Your task to perform on an android device: show emergency info Image 0: 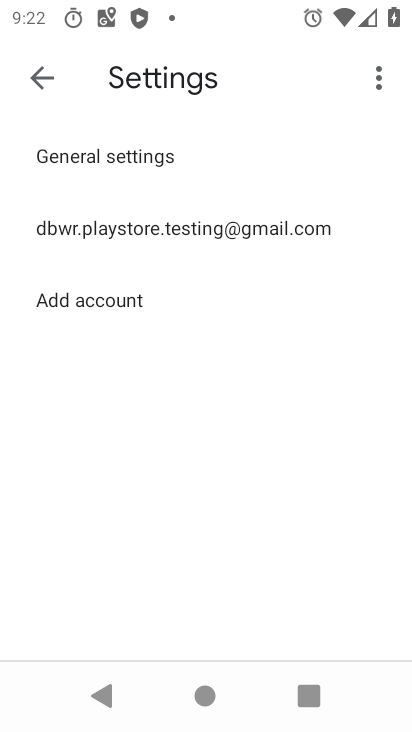
Step 0: press home button
Your task to perform on an android device: show emergency info Image 1: 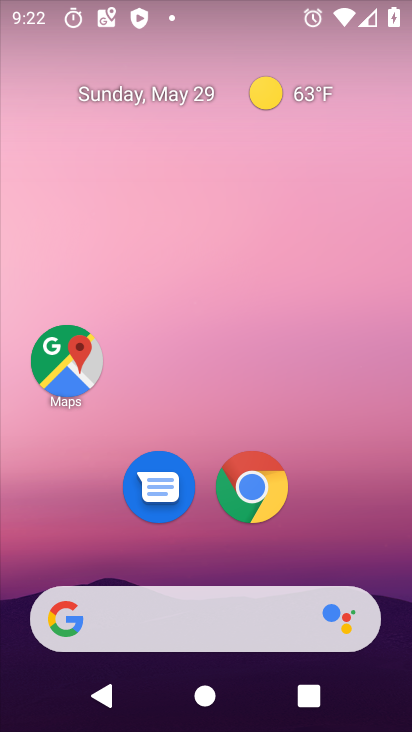
Step 1: drag from (200, 600) to (223, 148)
Your task to perform on an android device: show emergency info Image 2: 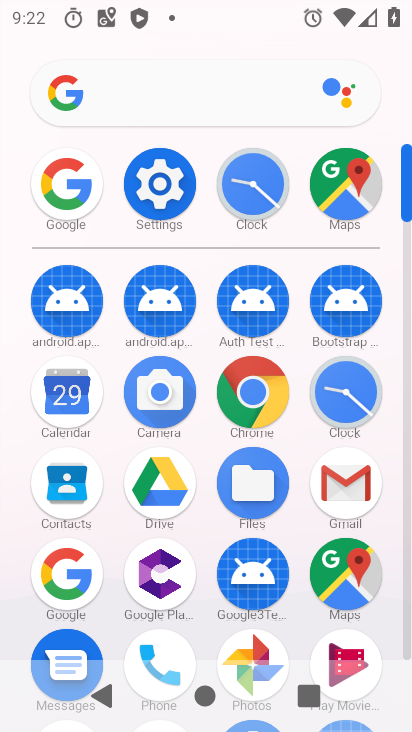
Step 2: click (158, 179)
Your task to perform on an android device: show emergency info Image 3: 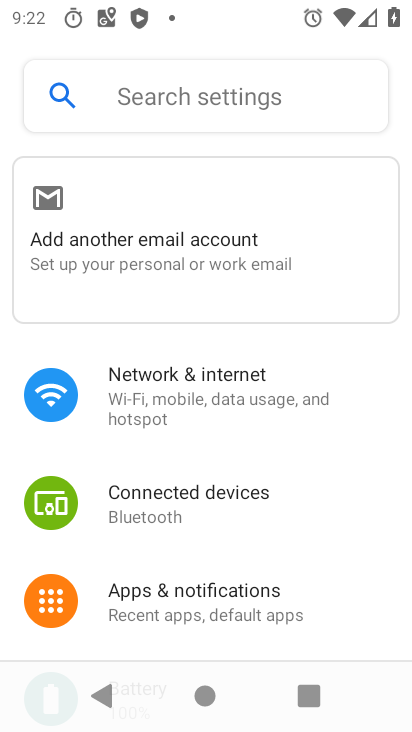
Step 3: drag from (185, 452) to (229, 204)
Your task to perform on an android device: show emergency info Image 4: 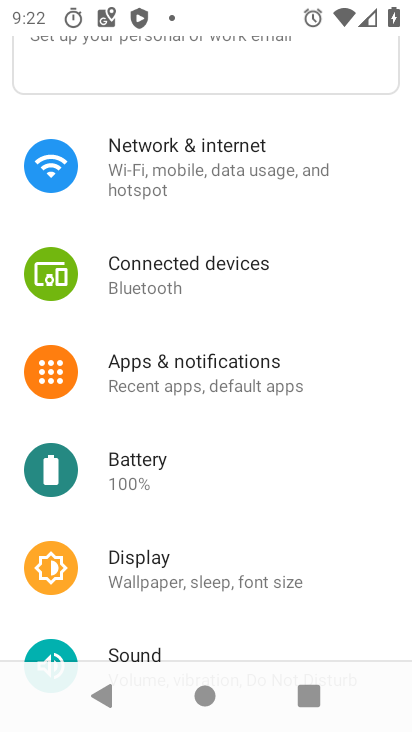
Step 4: drag from (129, 436) to (202, 212)
Your task to perform on an android device: show emergency info Image 5: 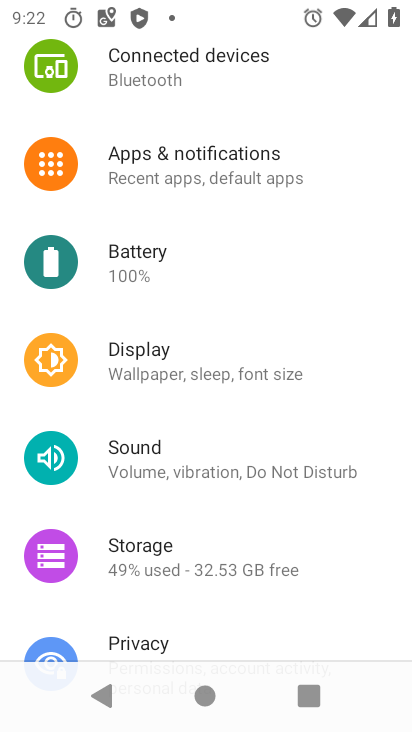
Step 5: drag from (173, 462) to (194, 166)
Your task to perform on an android device: show emergency info Image 6: 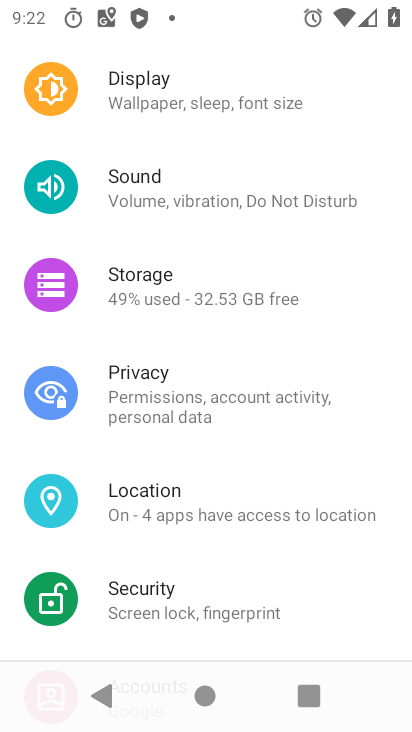
Step 6: drag from (185, 290) to (188, 38)
Your task to perform on an android device: show emergency info Image 7: 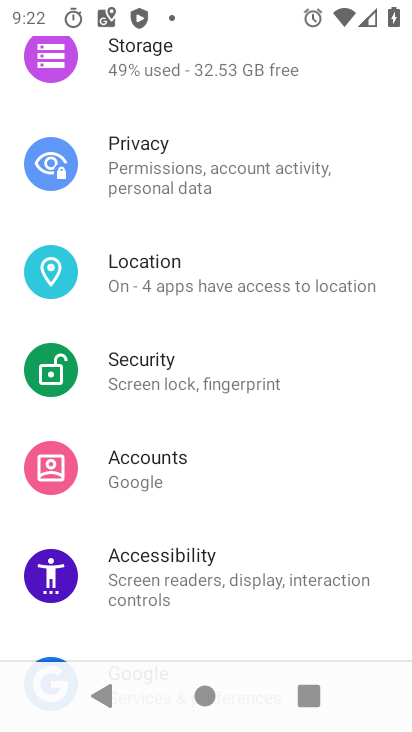
Step 7: drag from (189, 475) to (200, 120)
Your task to perform on an android device: show emergency info Image 8: 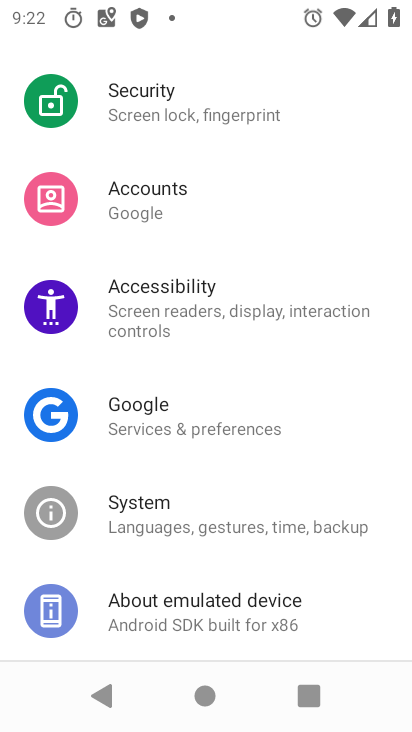
Step 8: drag from (216, 523) to (211, 238)
Your task to perform on an android device: show emergency info Image 9: 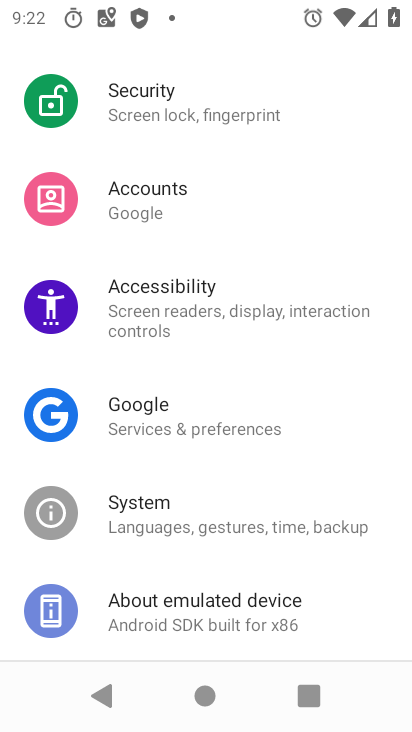
Step 9: click (200, 617)
Your task to perform on an android device: show emergency info Image 10: 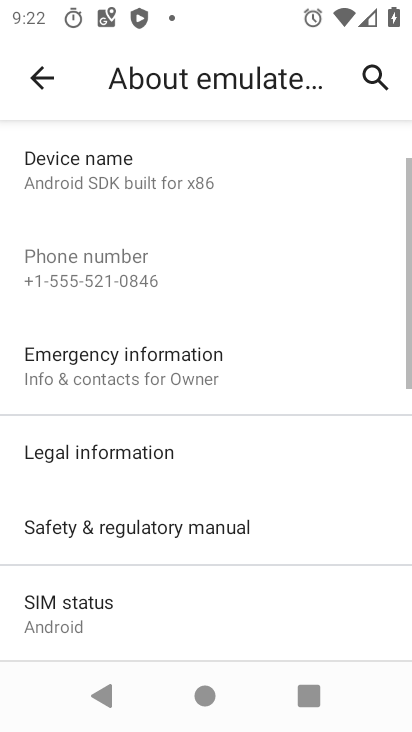
Step 10: click (227, 379)
Your task to perform on an android device: show emergency info Image 11: 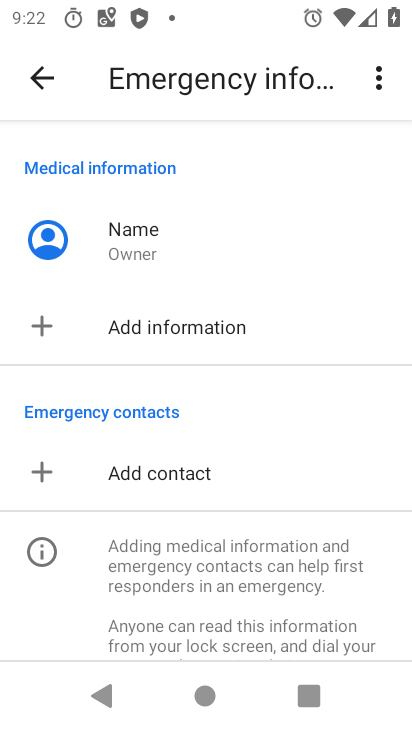
Step 11: task complete